Your task to perform on an android device: Open Yahoo.com Image 0: 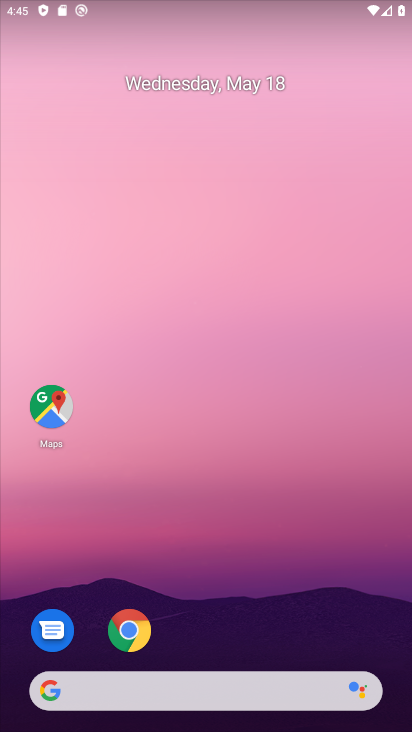
Step 0: click (248, 232)
Your task to perform on an android device: Open Yahoo.com Image 1: 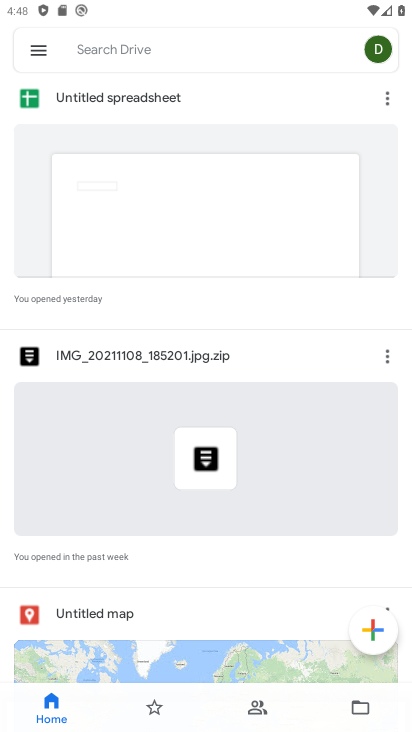
Step 1: press home button
Your task to perform on an android device: Open Yahoo.com Image 2: 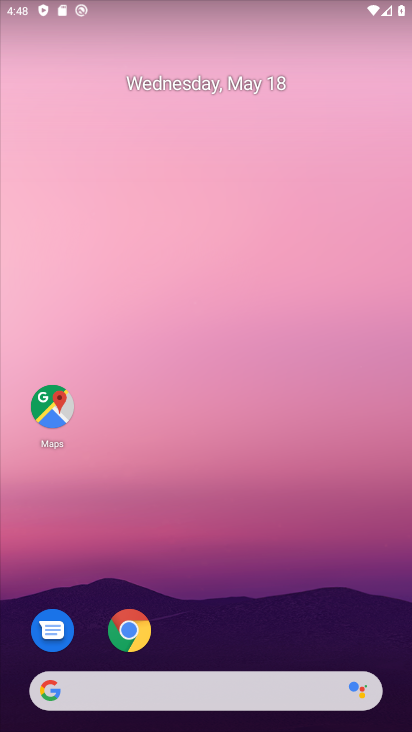
Step 2: drag from (206, 666) to (230, 208)
Your task to perform on an android device: Open Yahoo.com Image 3: 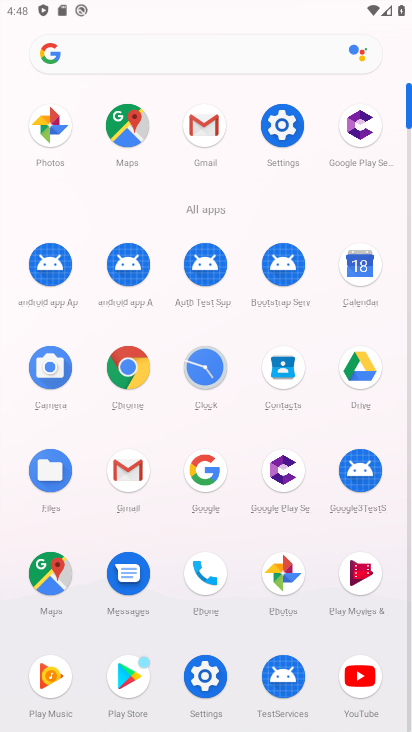
Step 3: click (132, 369)
Your task to perform on an android device: Open Yahoo.com Image 4: 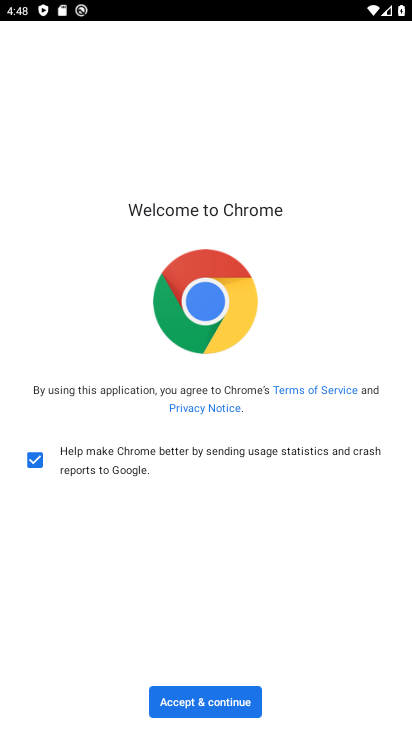
Step 4: click (193, 705)
Your task to perform on an android device: Open Yahoo.com Image 5: 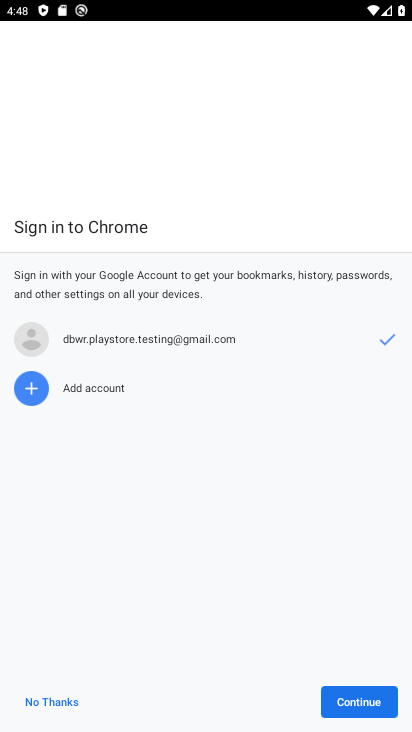
Step 5: click (353, 706)
Your task to perform on an android device: Open Yahoo.com Image 6: 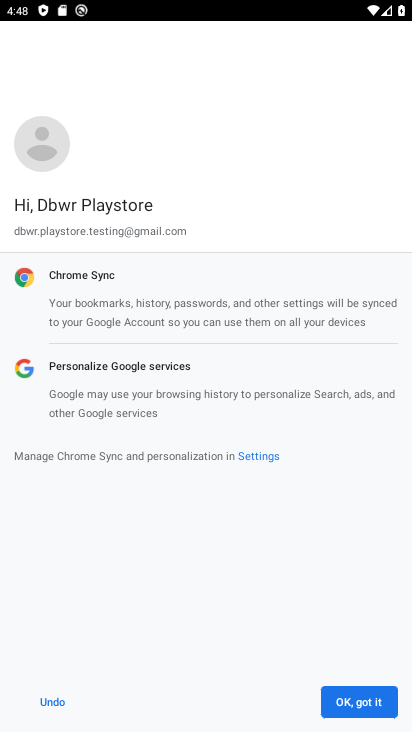
Step 6: click (374, 701)
Your task to perform on an android device: Open Yahoo.com Image 7: 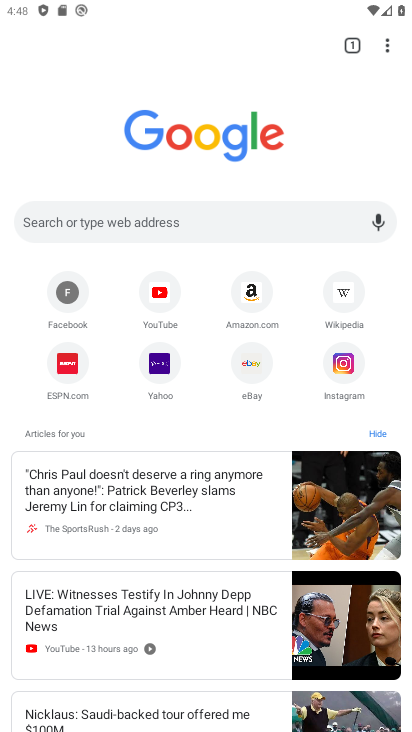
Step 7: click (162, 362)
Your task to perform on an android device: Open Yahoo.com Image 8: 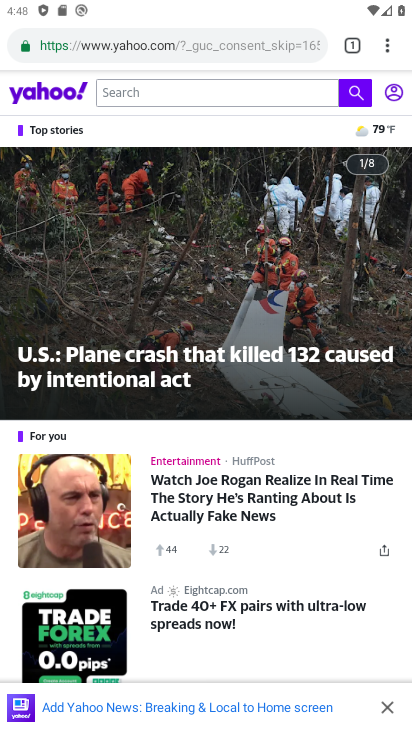
Step 8: task complete